Your task to perform on an android device: What is the recent news? Image 0: 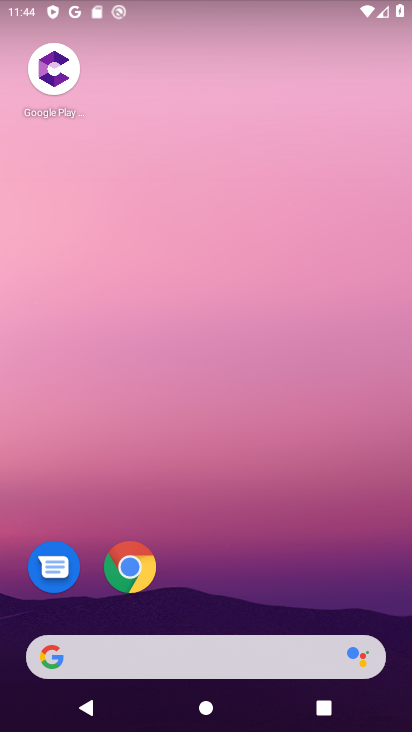
Step 0: click (196, 659)
Your task to perform on an android device: What is the recent news? Image 1: 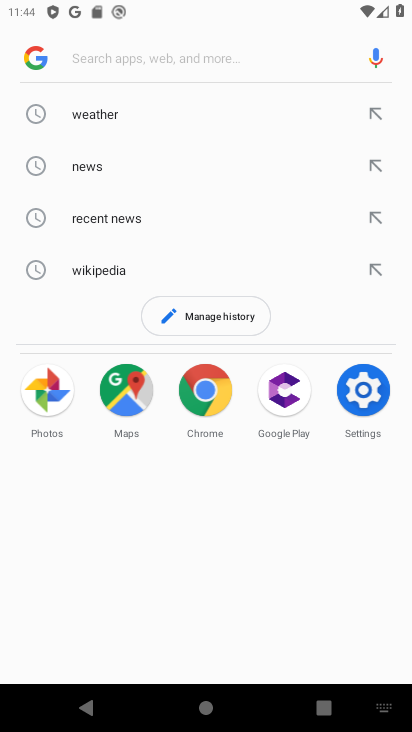
Step 1: type "what is the recent news"
Your task to perform on an android device: What is the recent news? Image 2: 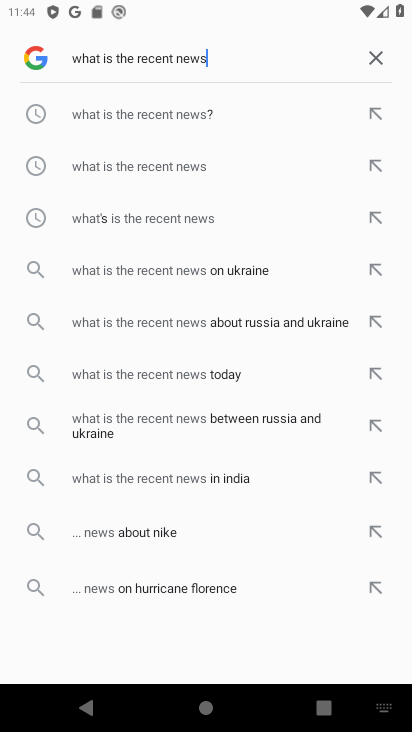
Step 2: click (219, 120)
Your task to perform on an android device: What is the recent news? Image 3: 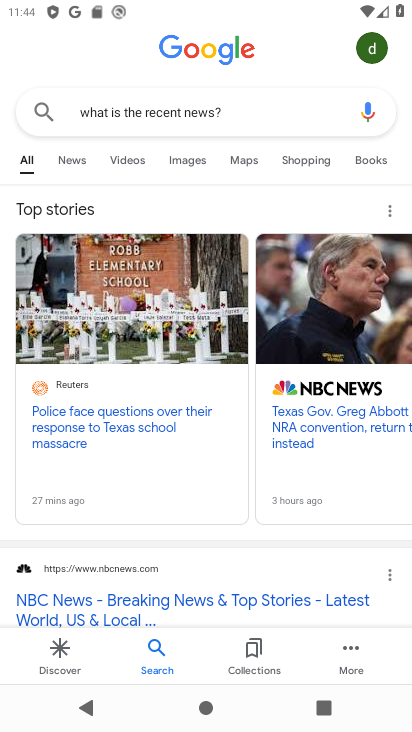
Step 3: click (76, 168)
Your task to perform on an android device: What is the recent news? Image 4: 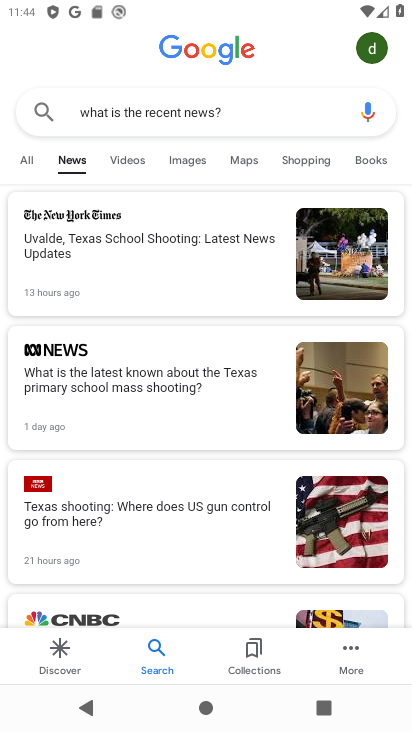
Step 4: task complete